Your task to perform on an android device: allow cookies in the chrome app Image 0: 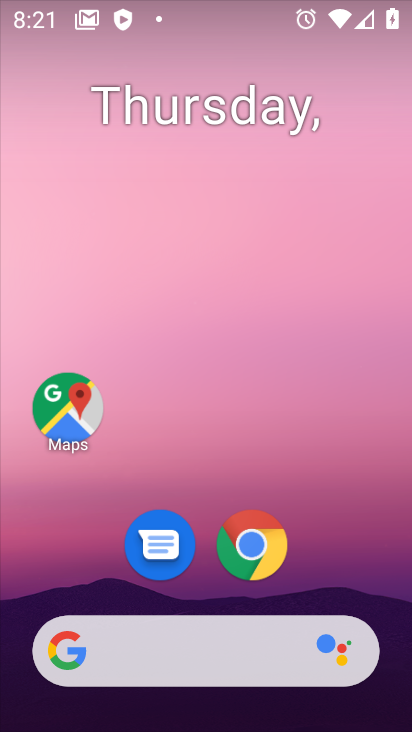
Step 0: click (252, 542)
Your task to perform on an android device: allow cookies in the chrome app Image 1: 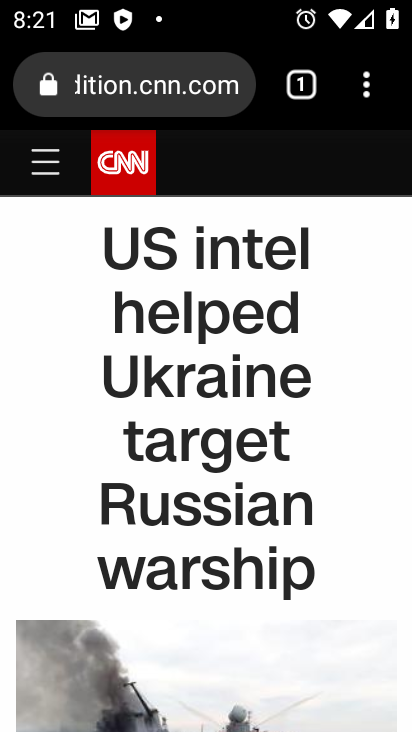
Step 1: click (359, 78)
Your task to perform on an android device: allow cookies in the chrome app Image 2: 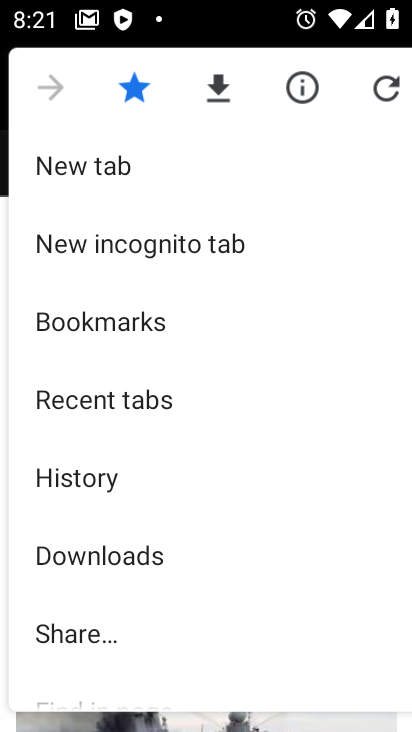
Step 2: drag from (133, 661) to (186, 206)
Your task to perform on an android device: allow cookies in the chrome app Image 3: 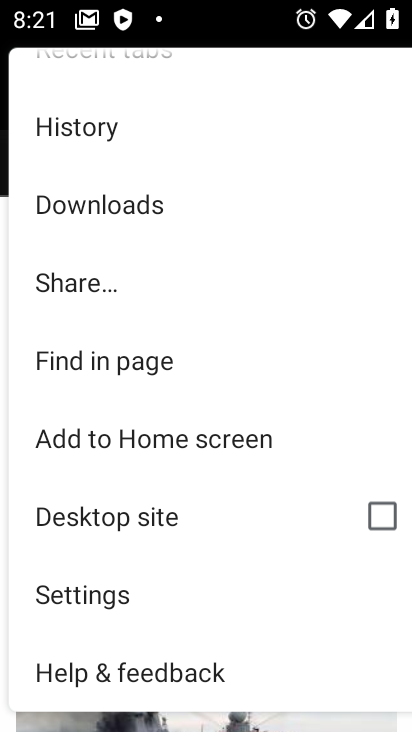
Step 3: click (91, 598)
Your task to perform on an android device: allow cookies in the chrome app Image 4: 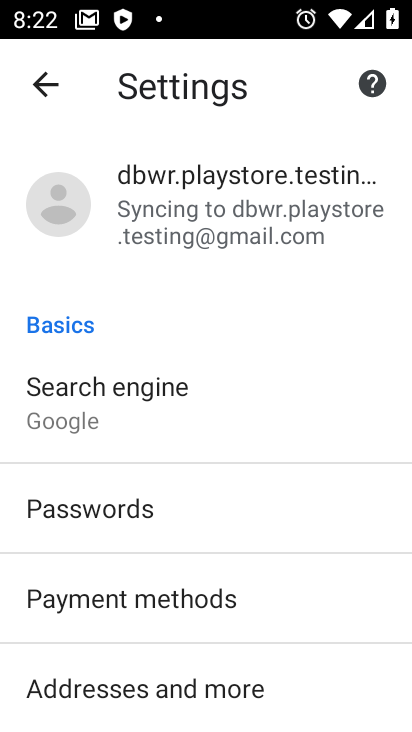
Step 4: drag from (159, 647) to (250, 72)
Your task to perform on an android device: allow cookies in the chrome app Image 5: 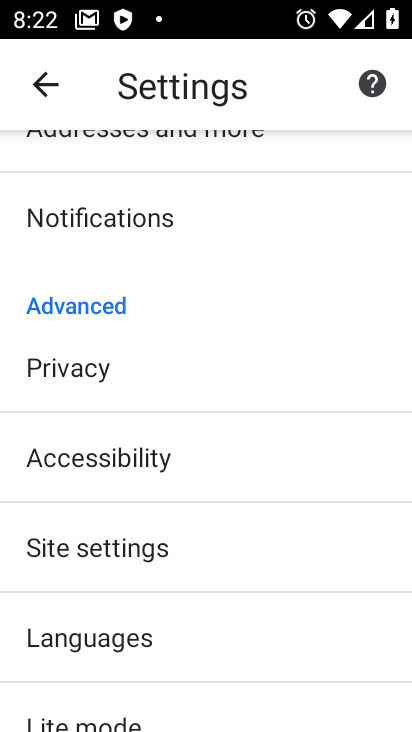
Step 5: click (88, 562)
Your task to perform on an android device: allow cookies in the chrome app Image 6: 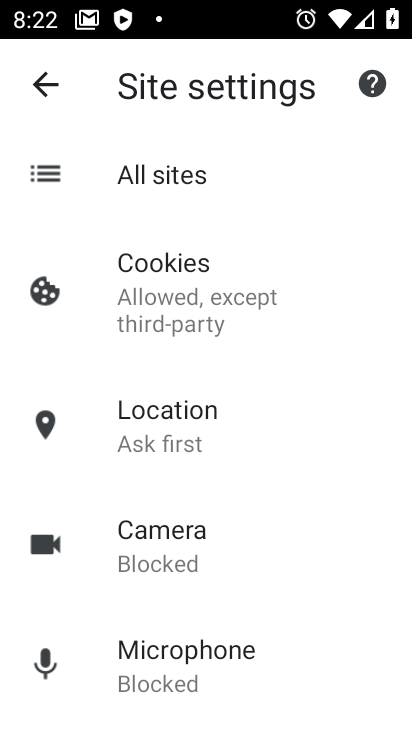
Step 6: click (243, 291)
Your task to perform on an android device: allow cookies in the chrome app Image 7: 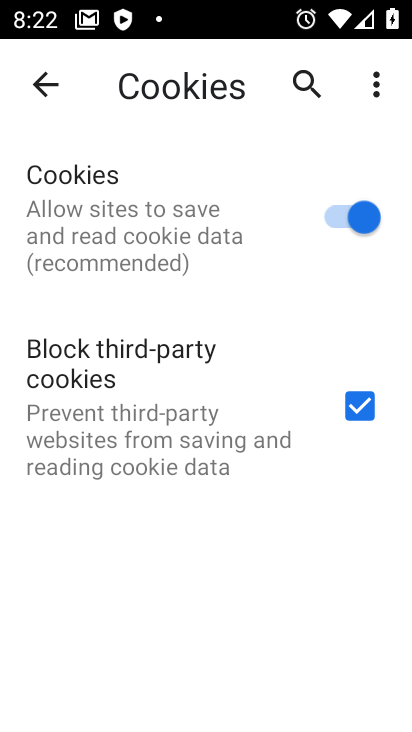
Step 7: task complete